Your task to perform on an android device: Open battery settings Image 0: 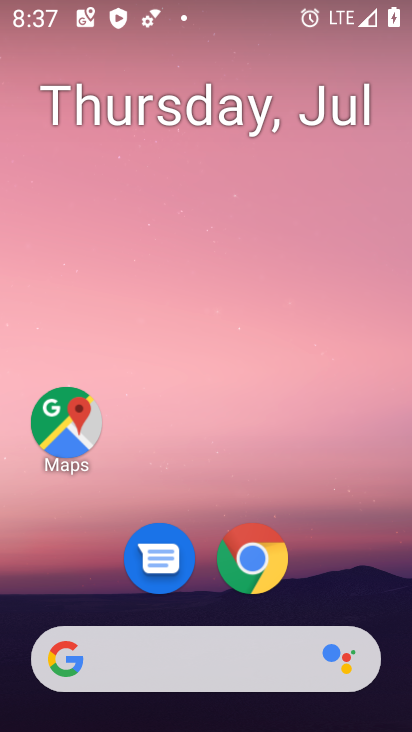
Step 0: drag from (198, 614) to (233, 205)
Your task to perform on an android device: Open battery settings Image 1: 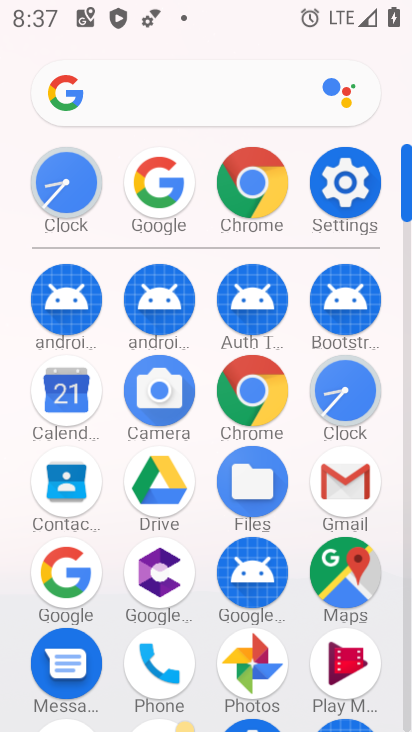
Step 1: click (356, 205)
Your task to perform on an android device: Open battery settings Image 2: 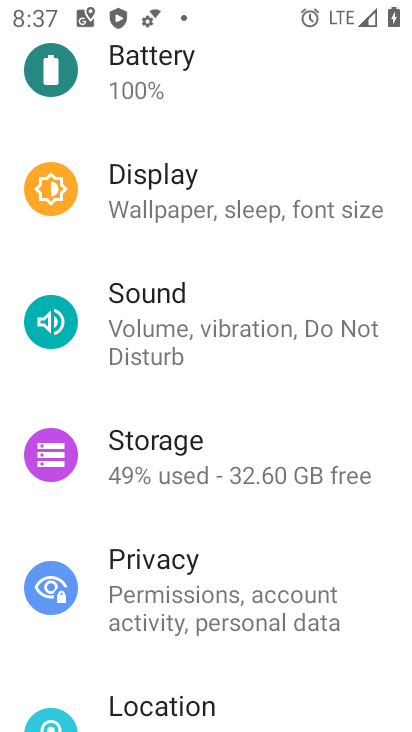
Step 2: click (224, 90)
Your task to perform on an android device: Open battery settings Image 3: 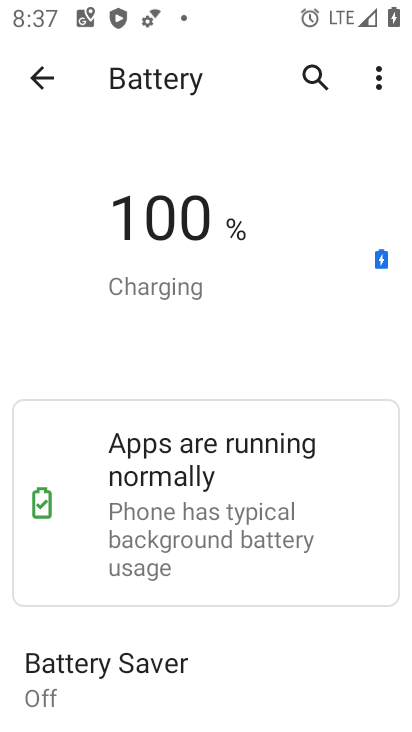
Step 3: task complete